Your task to perform on an android device: Search for vegetarian restaurants on Maps Image 0: 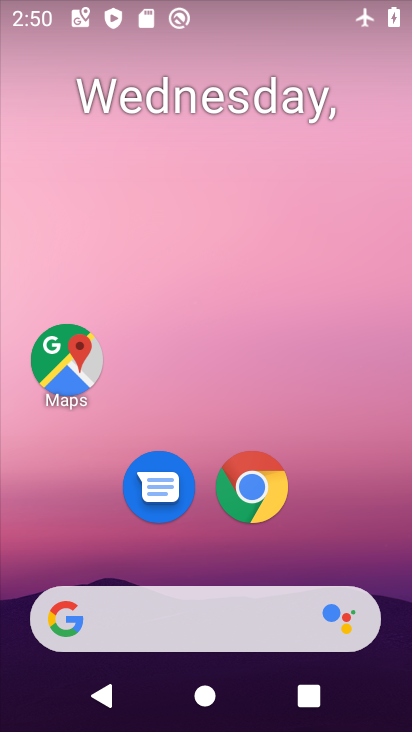
Step 0: click (44, 358)
Your task to perform on an android device: Search for vegetarian restaurants on Maps Image 1: 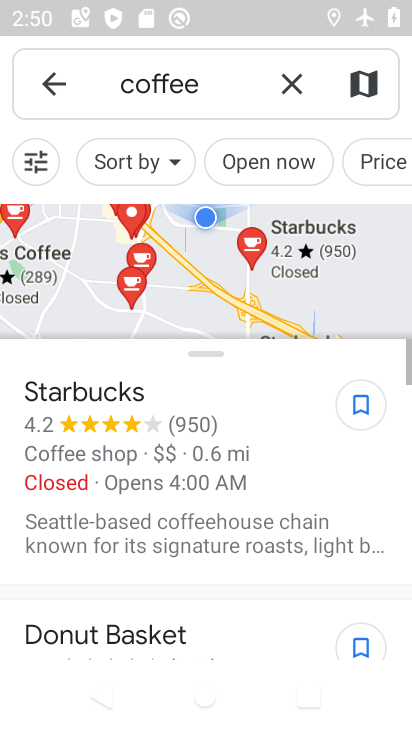
Step 1: click (292, 75)
Your task to perform on an android device: Search for vegetarian restaurants on Maps Image 2: 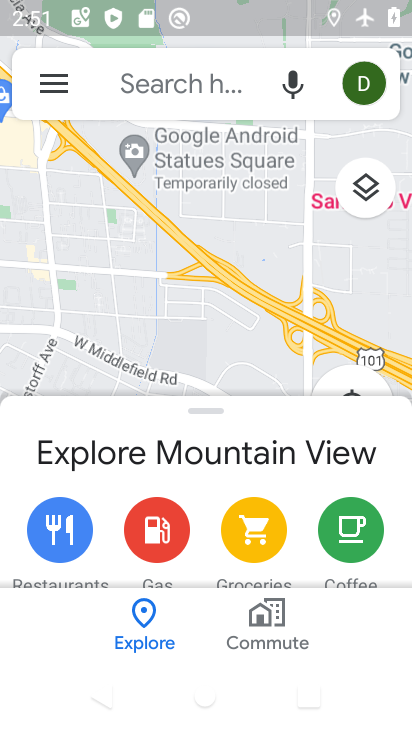
Step 2: click (156, 76)
Your task to perform on an android device: Search for vegetarian restaurants on Maps Image 3: 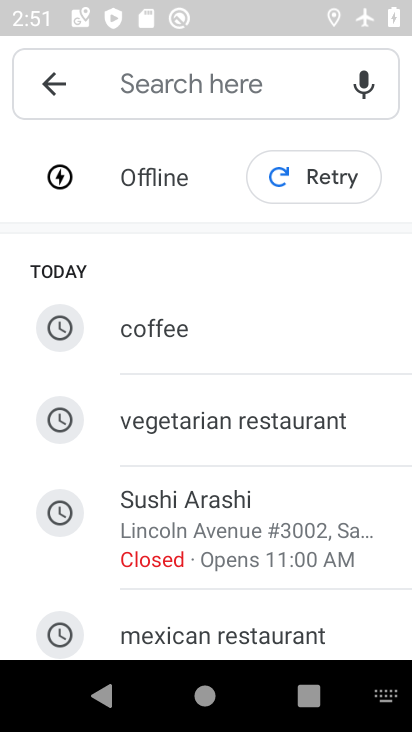
Step 3: click (208, 434)
Your task to perform on an android device: Search for vegetarian restaurants on Maps Image 4: 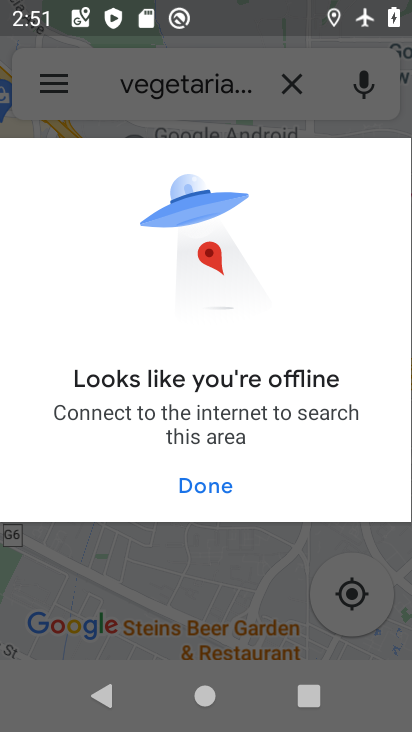
Step 4: click (204, 483)
Your task to perform on an android device: Search for vegetarian restaurants on Maps Image 5: 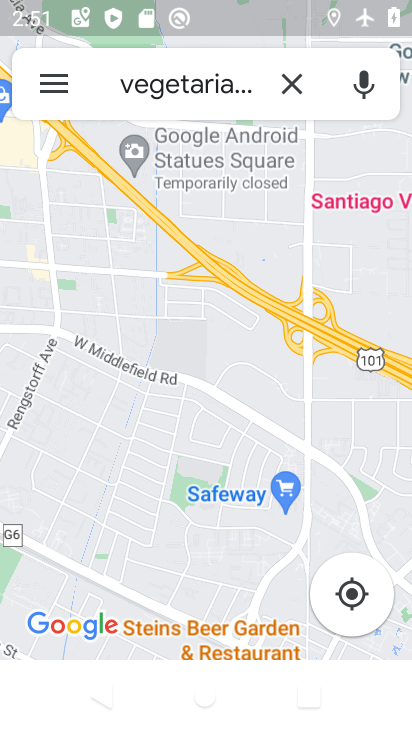
Step 5: task complete